Your task to perform on an android device: Open battery settings Image 0: 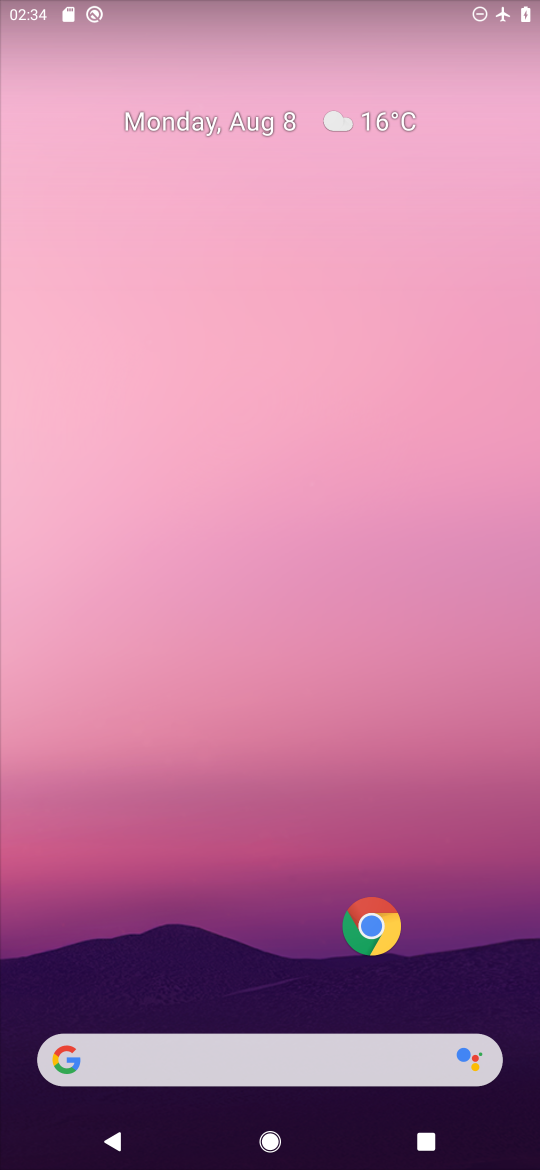
Step 0: drag from (215, 1045) to (296, 298)
Your task to perform on an android device: Open battery settings Image 1: 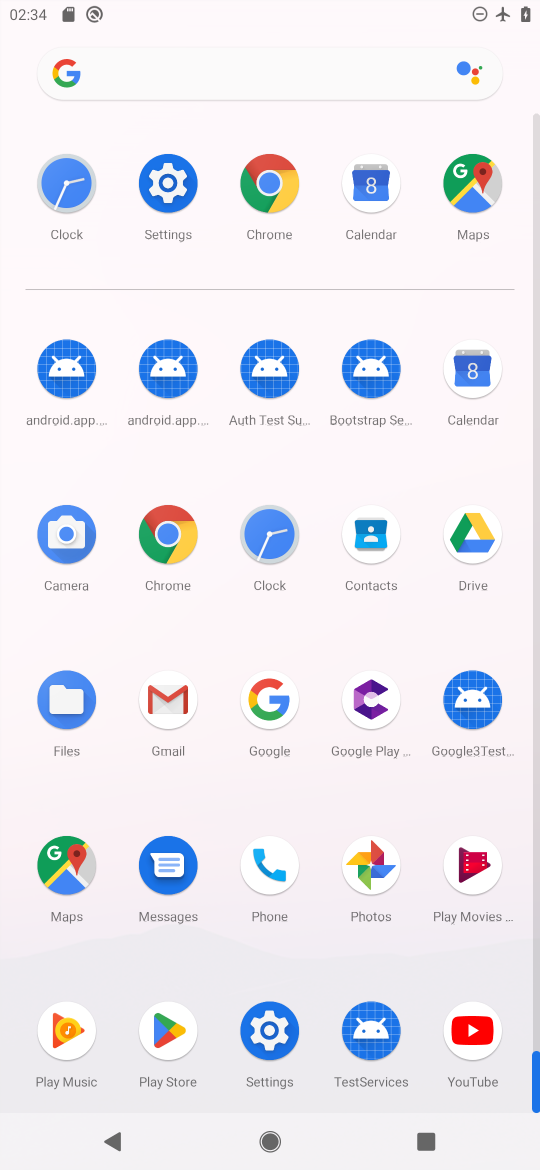
Step 1: click (160, 171)
Your task to perform on an android device: Open battery settings Image 2: 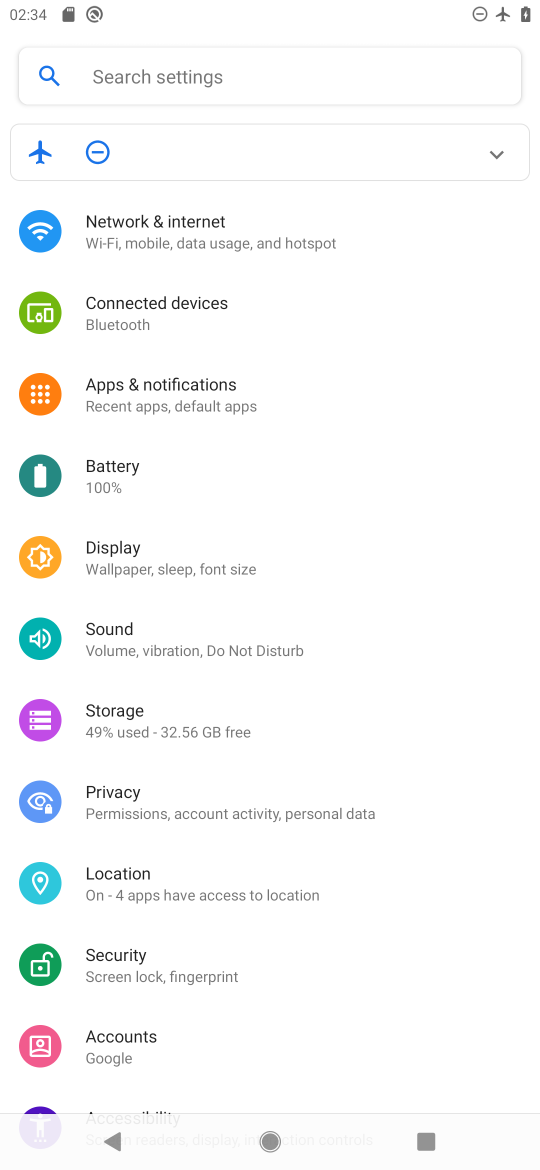
Step 2: click (128, 474)
Your task to perform on an android device: Open battery settings Image 3: 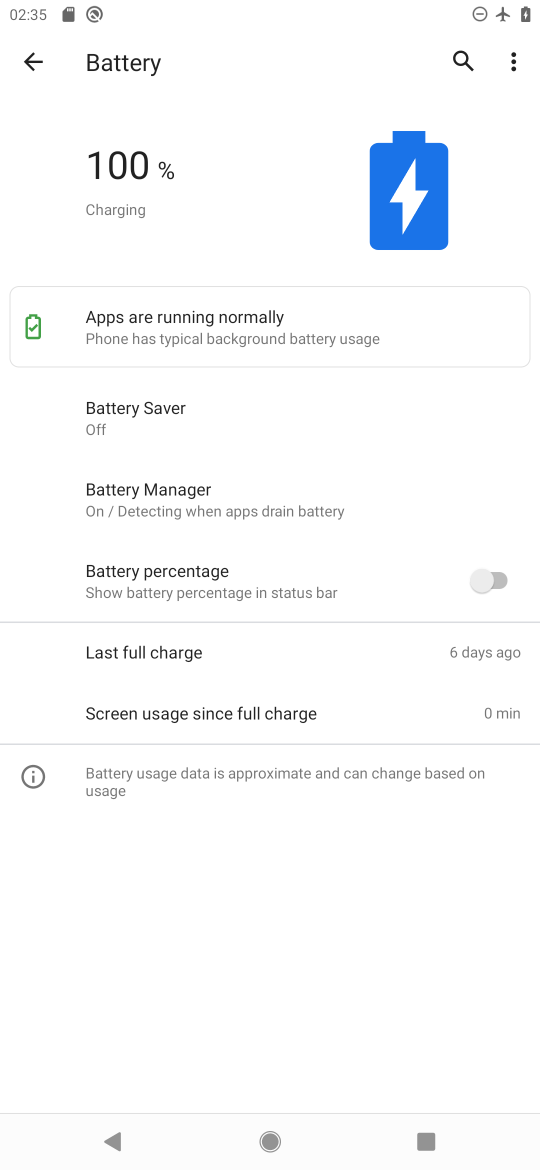
Step 3: task complete